Your task to perform on an android device: Is it going to rain tomorrow? Image 0: 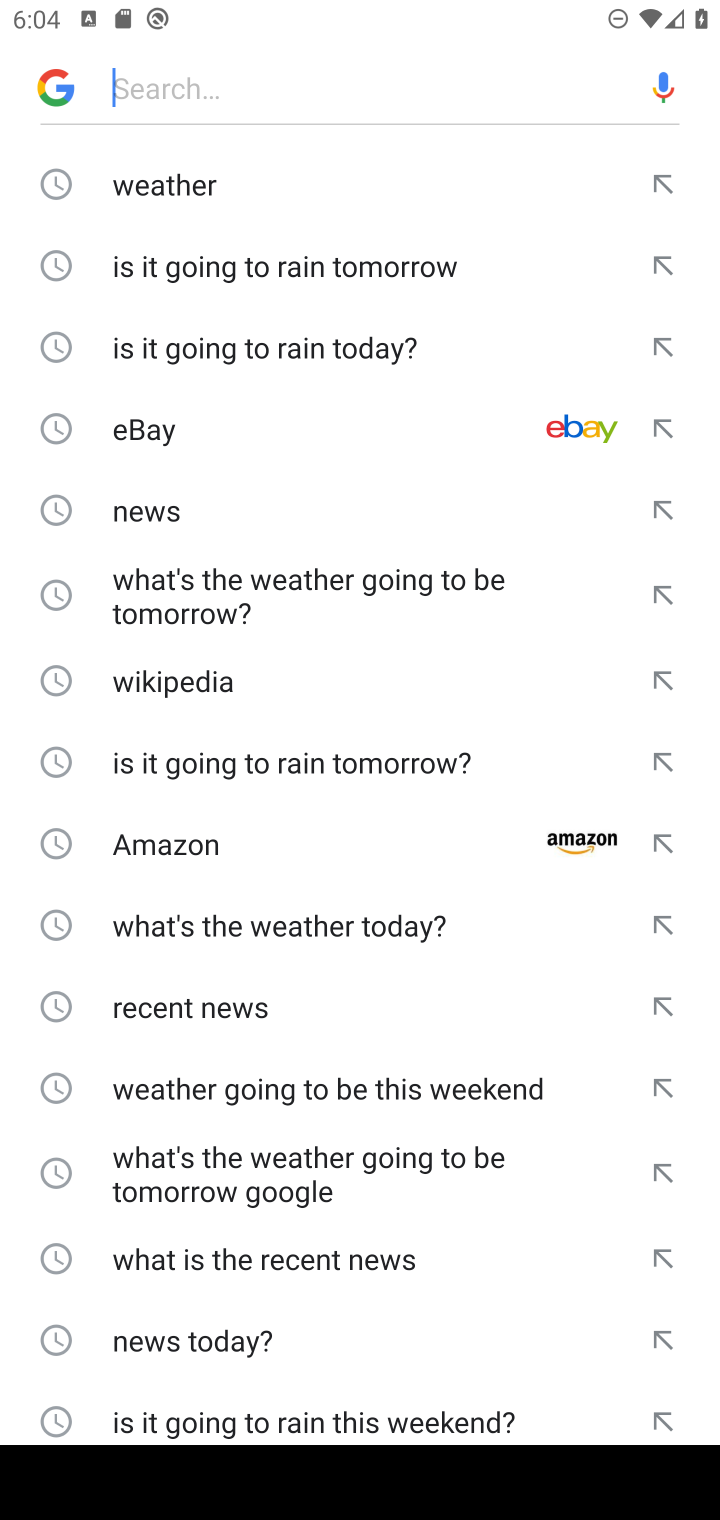
Step 0: click (367, 262)
Your task to perform on an android device: Is it going to rain tomorrow? Image 1: 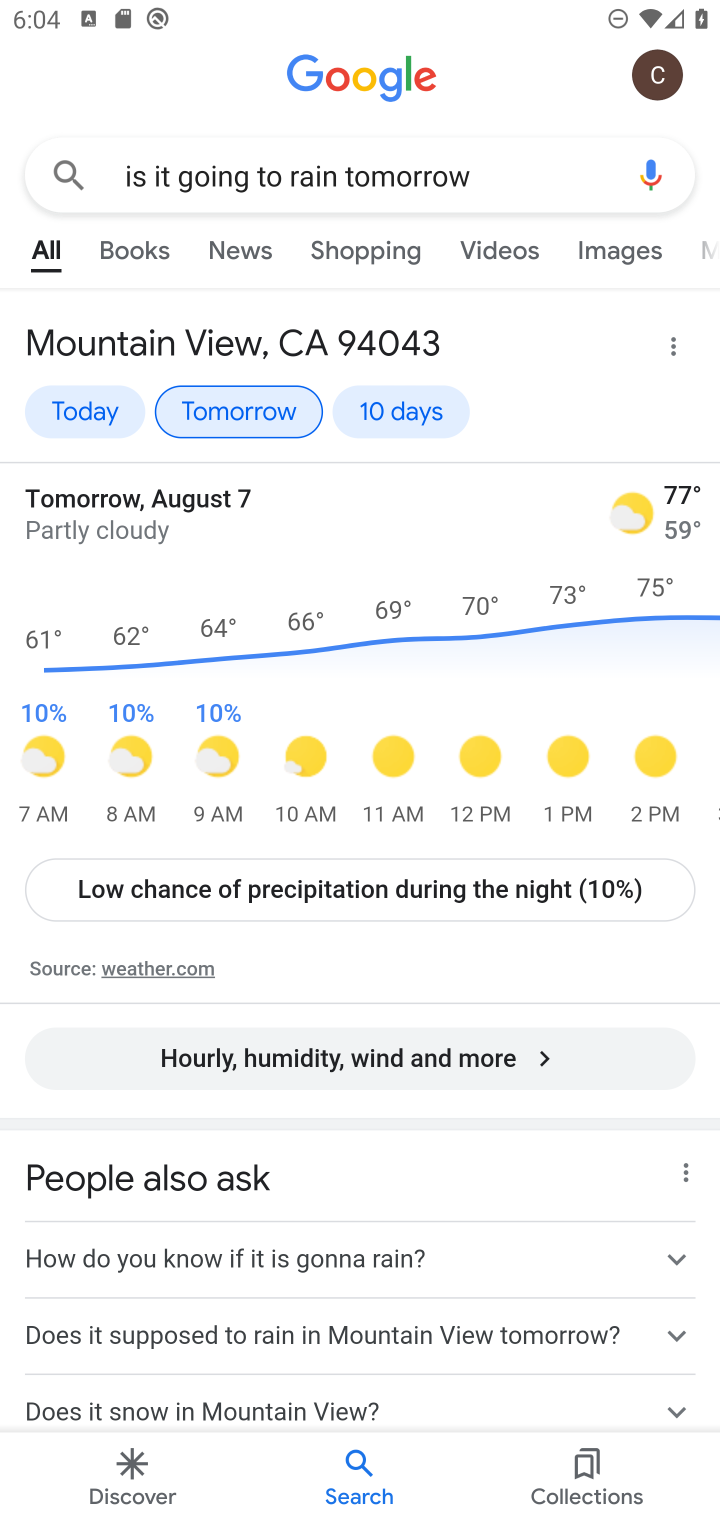
Step 1: task complete